Your task to perform on an android device: Open Yahoo.com Image 0: 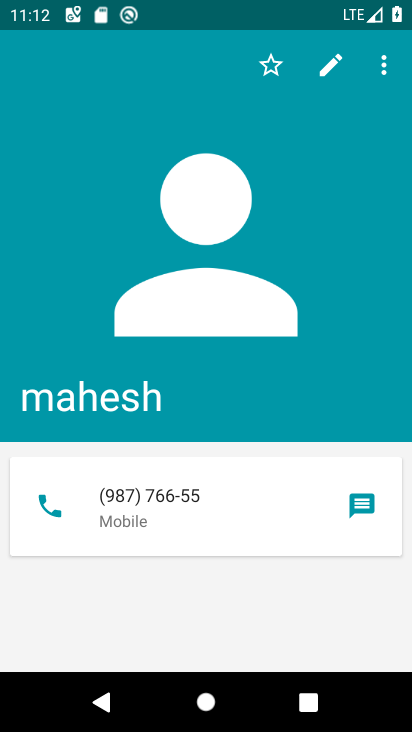
Step 0: press home button
Your task to perform on an android device: Open Yahoo.com Image 1: 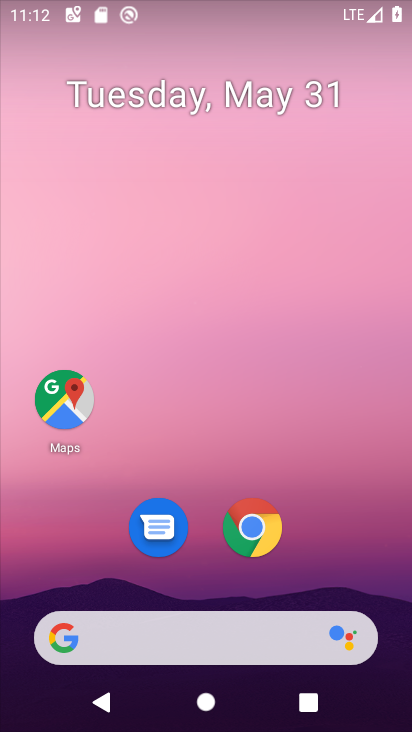
Step 1: click (255, 536)
Your task to perform on an android device: Open Yahoo.com Image 2: 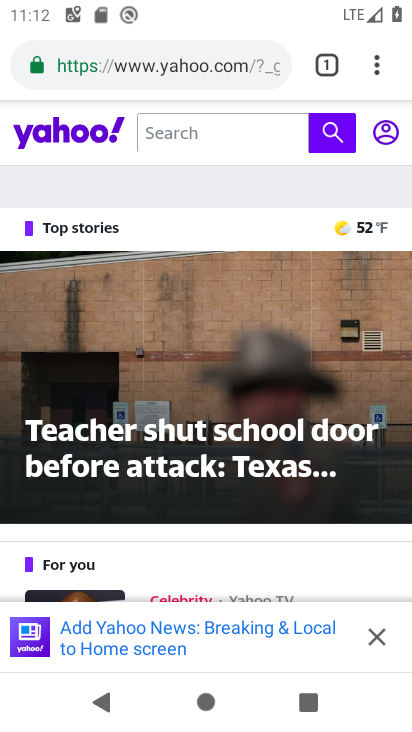
Step 2: task complete